Your task to perform on an android device: find which apps use the phone's location Image 0: 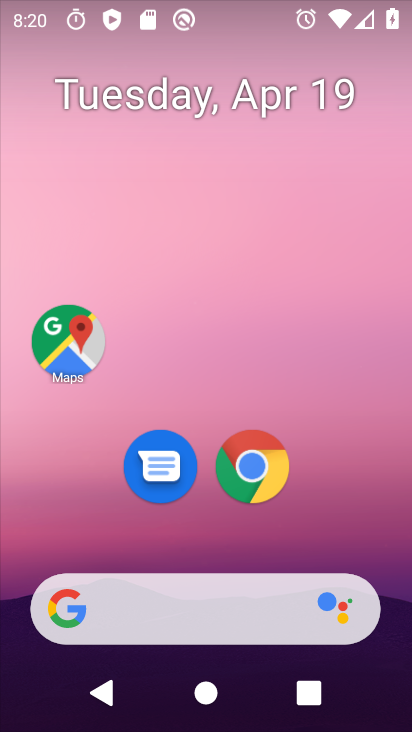
Step 0: drag from (379, 548) to (332, 95)
Your task to perform on an android device: find which apps use the phone's location Image 1: 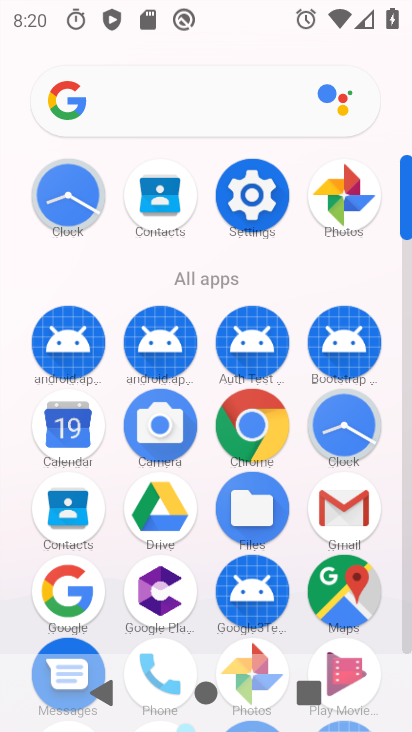
Step 1: drag from (407, 507) to (407, 262)
Your task to perform on an android device: find which apps use the phone's location Image 2: 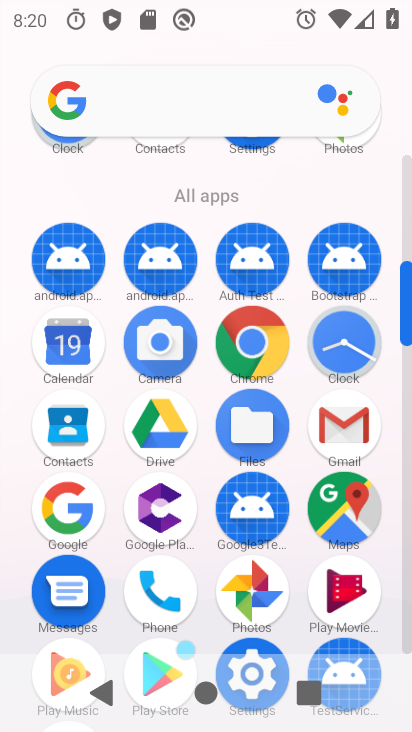
Step 2: drag from (401, 261) to (411, 442)
Your task to perform on an android device: find which apps use the phone's location Image 3: 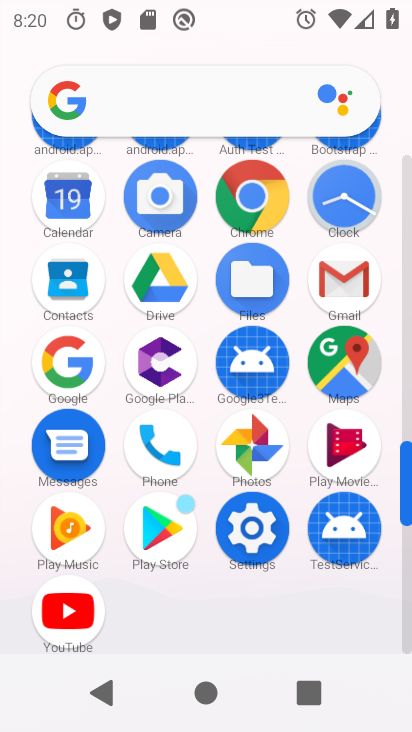
Step 3: click (267, 527)
Your task to perform on an android device: find which apps use the phone's location Image 4: 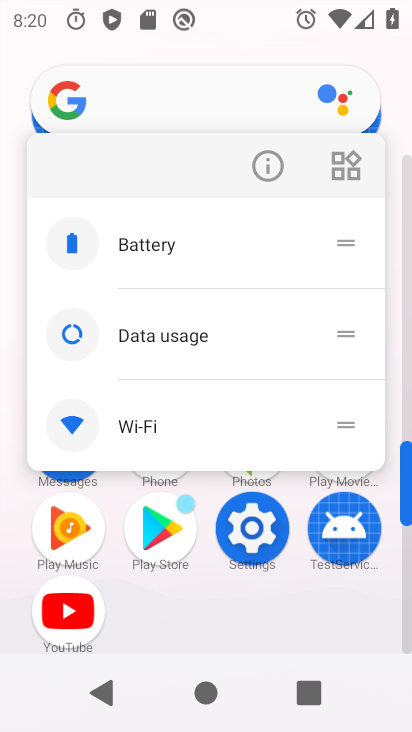
Step 4: click (269, 516)
Your task to perform on an android device: find which apps use the phone's location Image 5: 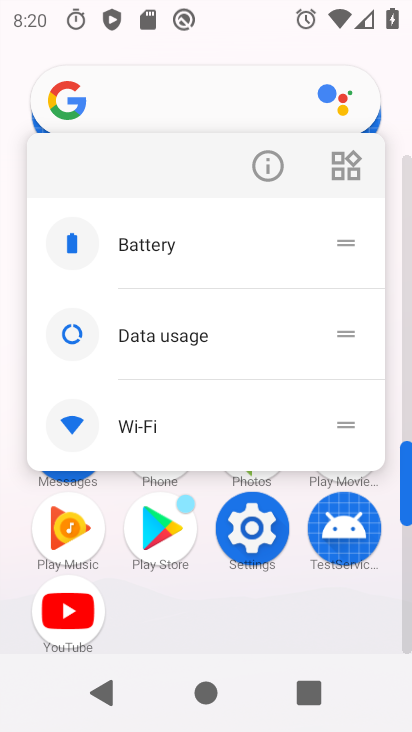
Step 5: click (269, 516)
Your task to perform on an android device: find which apps use the phone's location Image 6: 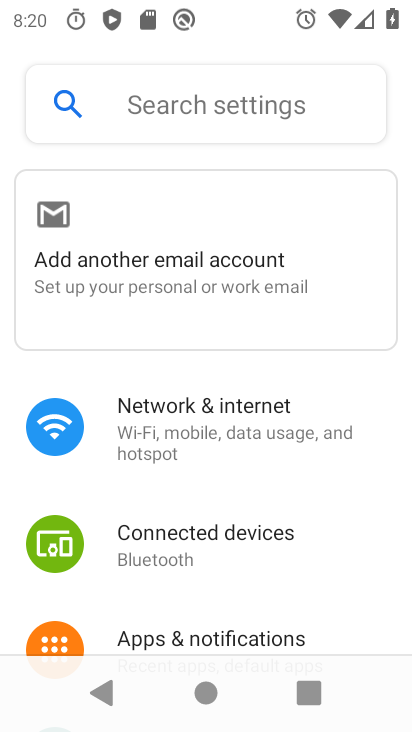
Step 6: drag from (250, 589) to (206, 222)
Your task to perform on an android device: find which apps use the phone's location Image 7: 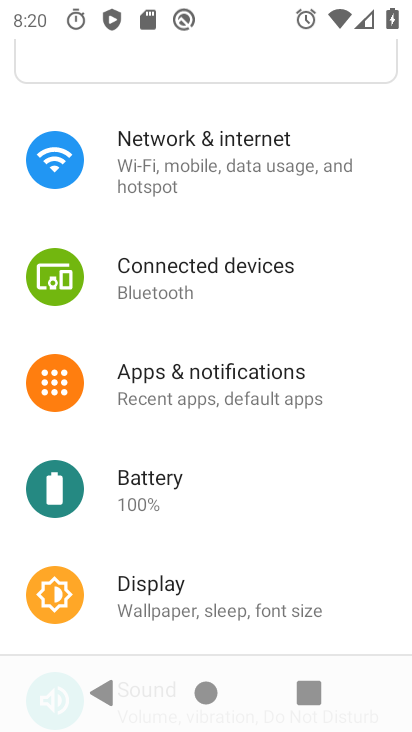
Step 7: drag from (217, 570) to (203, 231)
Your task to perform on an android device: find which apps use the phone's location Image 8: 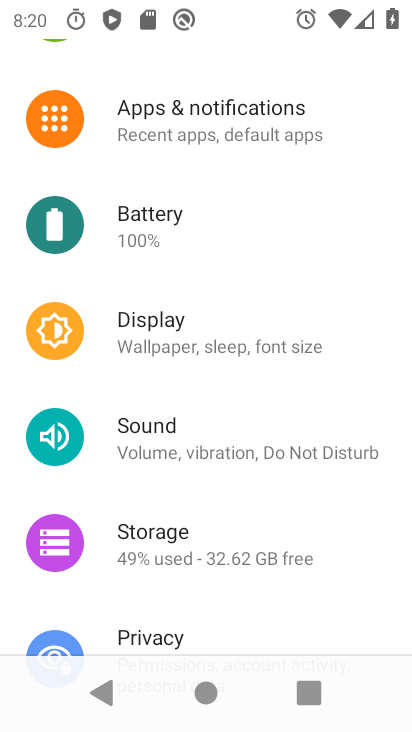
Step 8: drag from (219, 604) to (232, 257)
Your task to perform on an android device: find which apps use the phone's location Image 9: 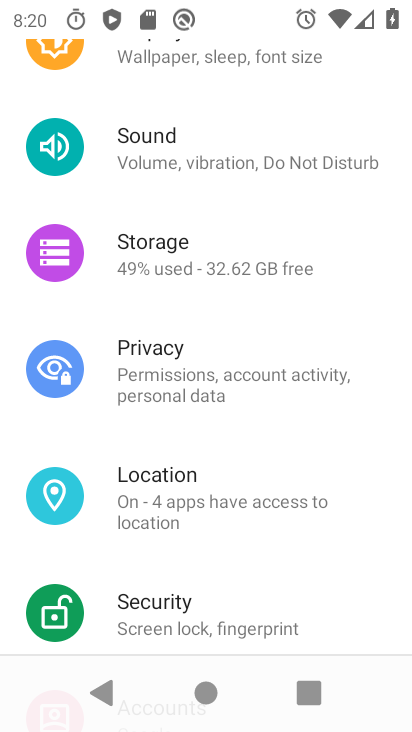
Step 9: drag from (220, 625) to (271, 260)
Your task to perform on an android device: find which apps use the phone's location Image 10: 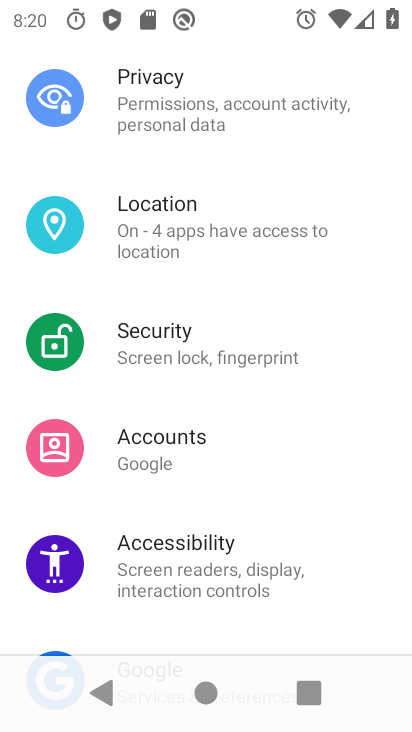
Step 10: drag from (230, 556) to (301, 262)
Your task to perform on an android device: find which apps use the phone's location Image 11: 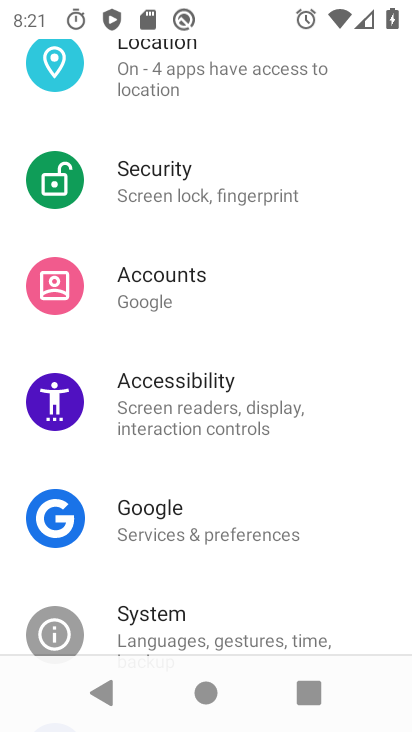
Step 11: drag from (286, 594) to (309, 235)
Your task to perform on an android device: find which apps use the phone's location Image 12: 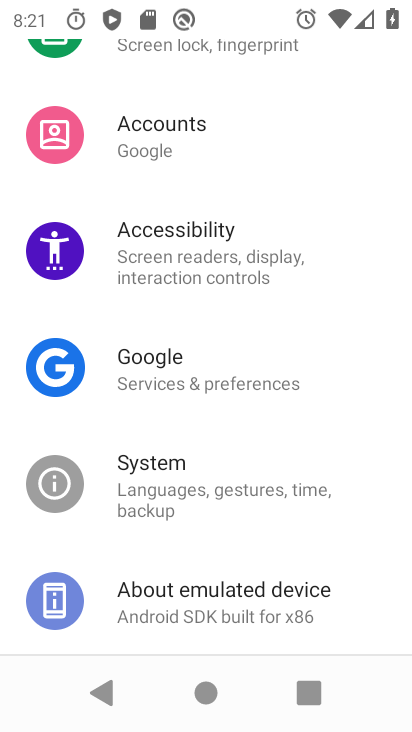
Step 12: drag from (271, 252) to (300, 515)
Your task to perform on an android device: find which apps use the phone's location Image 13: 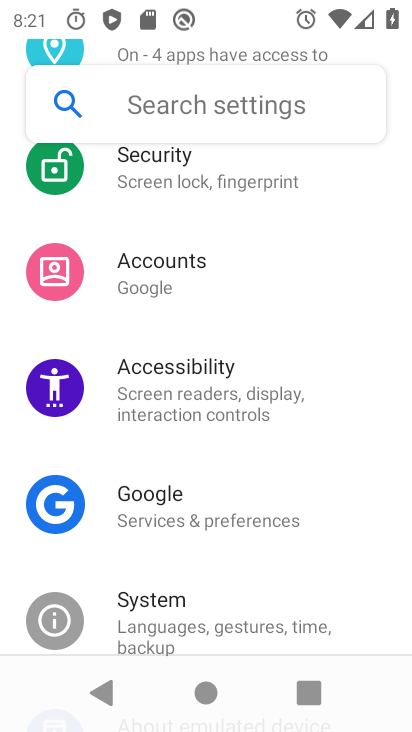
Step 13: drag from (267, 215) to (253, 586)
Your task to perform on an android device: find which apps use the phone's location Image 14: 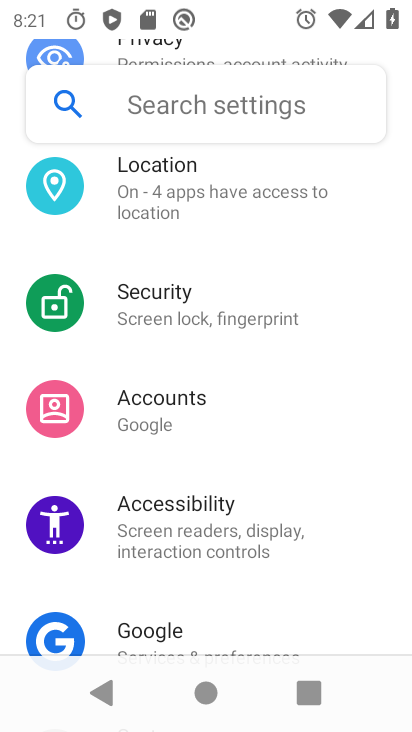
Step 14: drag from (216, 184) to (196, 565)
Your task to perform on an android device: find which apps use the phone's location Image 15: 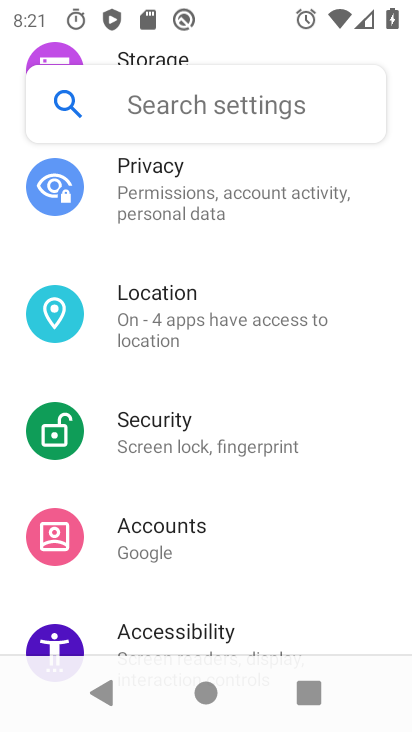
Step 15: click (158, 298)
Your task to perform on an android device: find which apps use the phone's location Image 16: 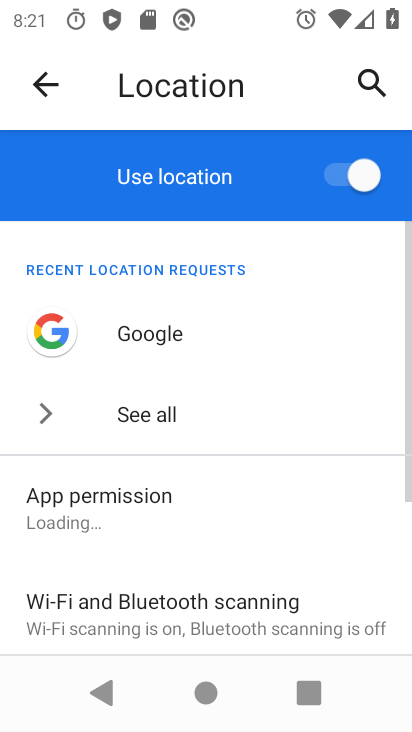
Step 16: click (83, 502)
Your task to perform on an android device: find which apps use the phone's location Image 17: 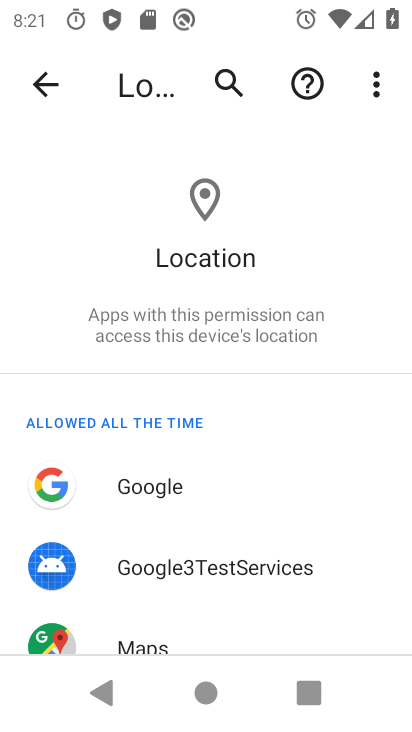
Step 17: task complete